Your task to perform on an android device: check data usage Image 0: 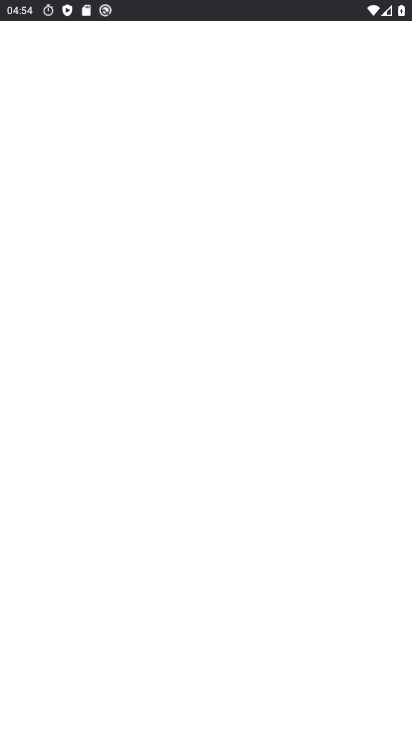
Step 0: click (134, 624)
Your task to perform on an android device: check data usage Image 1: 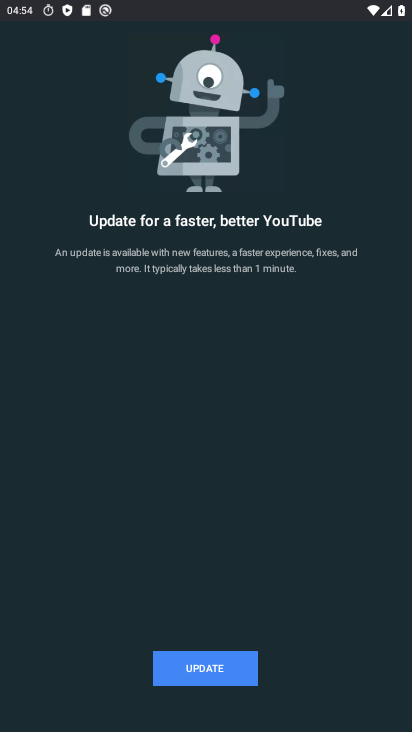
Step 1: press home button
Your task to perform on an android device: check data usage Image 2: 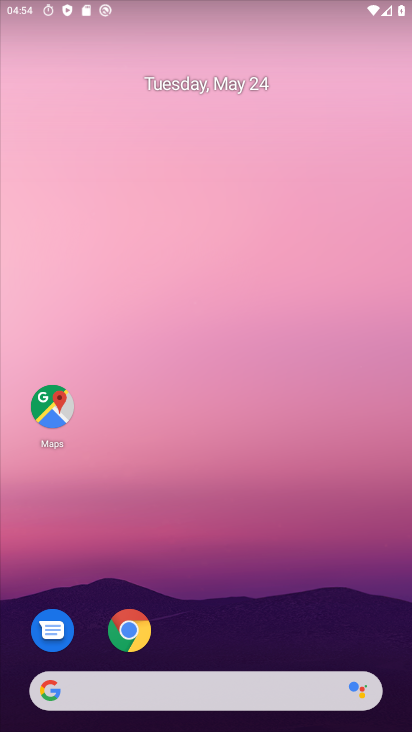
Step 2: drag from (208, 19) to (244, 730)
Your task to perform on an android device: check data usage Image 3: 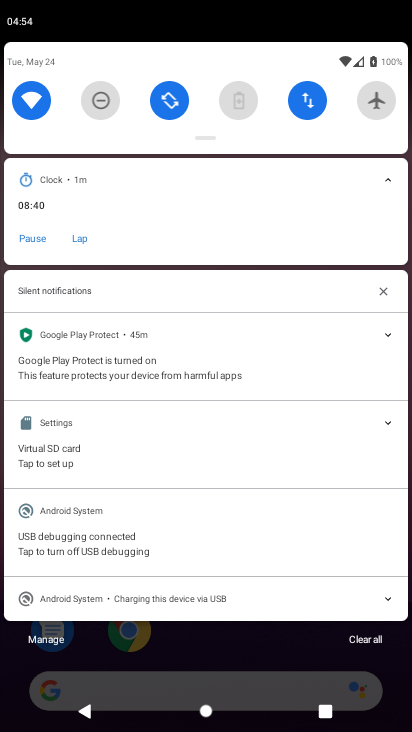
Step 3: click (303, 108)
Your task to perform on an android device: check data usage Image 4: 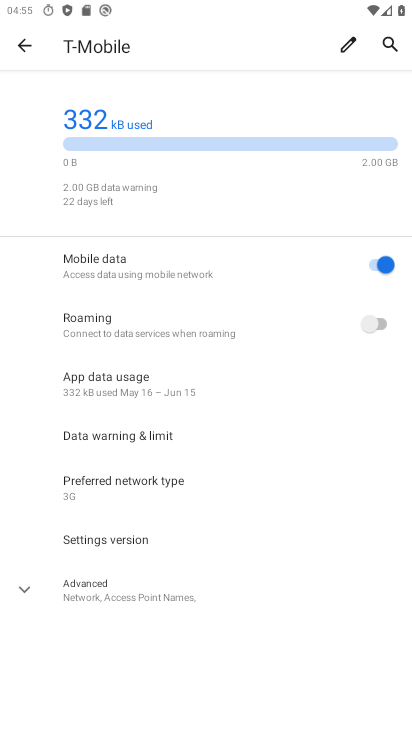
Step 4: task complete